Your task to perform on an android device: toggle location history Image 0: 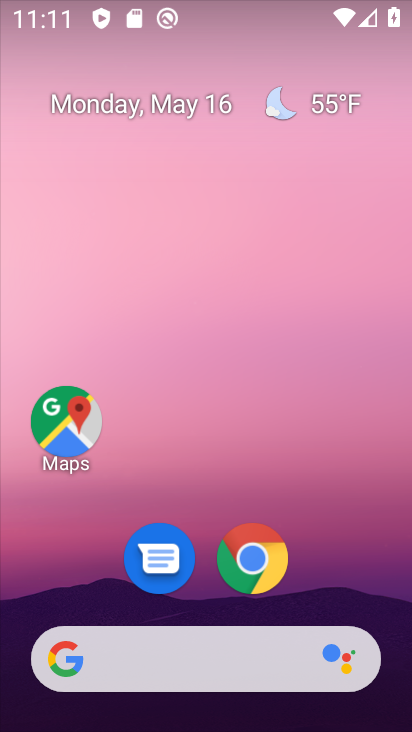
Step 0: drag from (206, 500) to (241, 112)
Your task to perform on an android device: toggle location history Image 1: 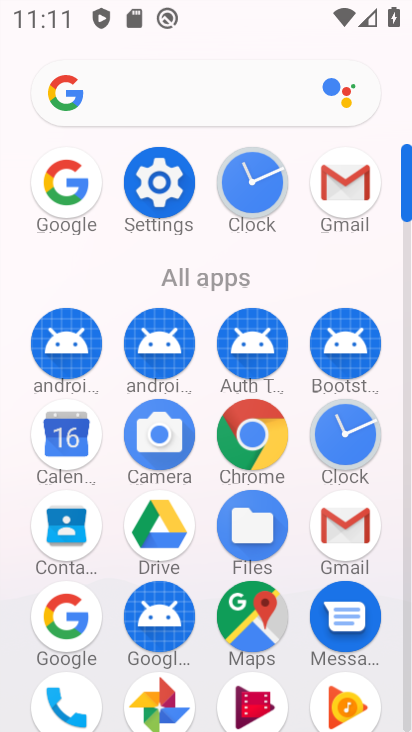
Step 1: click (165, 185)
Your task to perform on an android device: toggle location history Image 2: 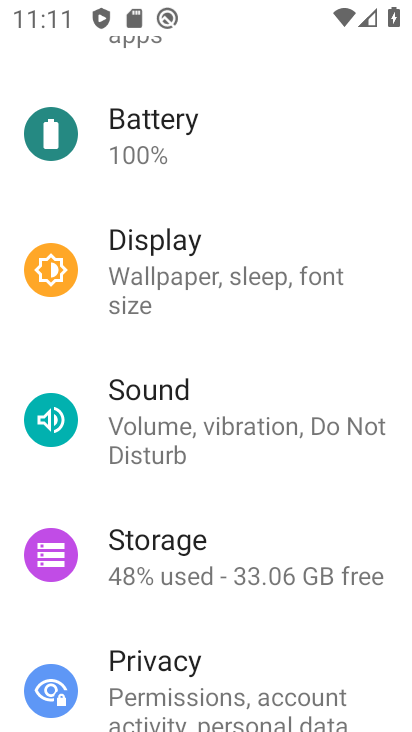
Step 2: drag from (238, 549) to (303, 132)
Your task to perform on an android device: toggle location history Image 3: 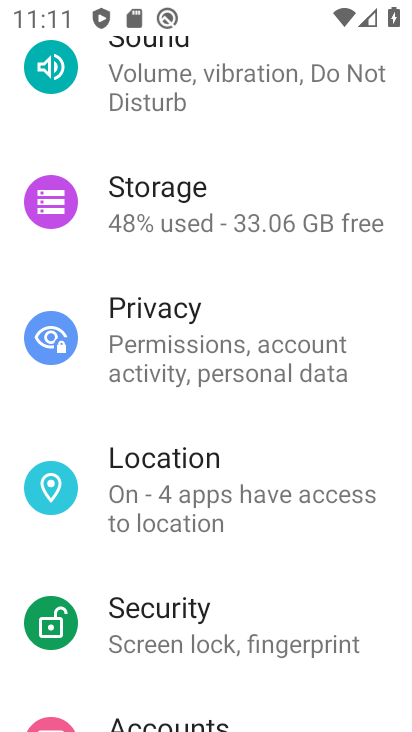
Step 3: click (188, 495)
Your task to perform on an android device: toggle location history Image 4: 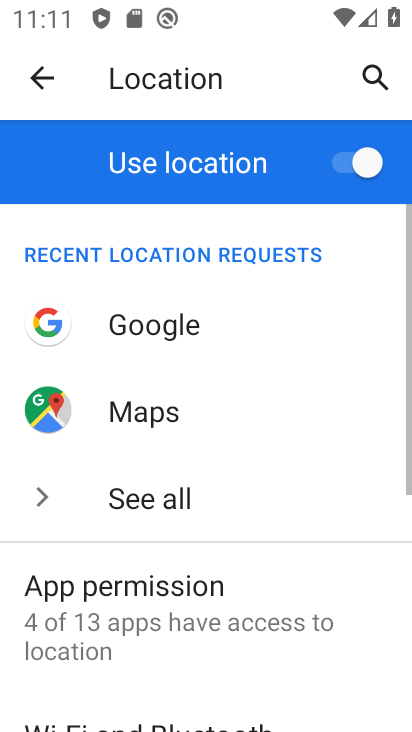
Step 4: drag from (231, 559) to (253, 146)
Your task to perform on an android device: toggle location history Image 5: 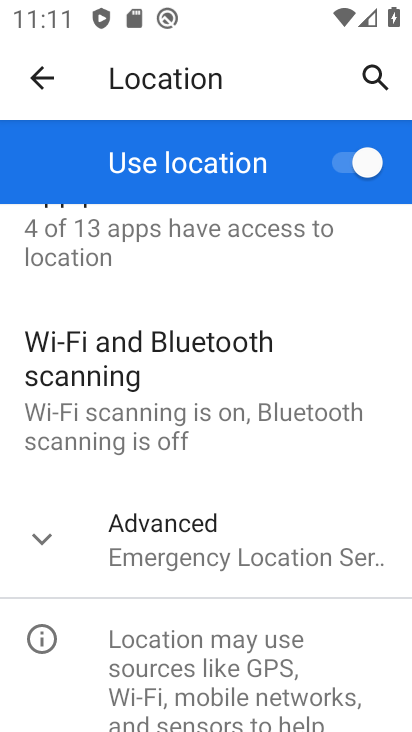
Step 5: click (157, 548)
Your task to perform on an android device: toggle location history Image 6: 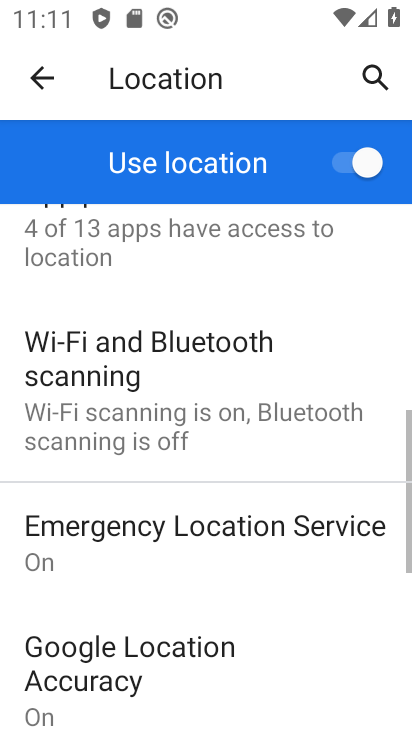
Step 6: drag from (226, 575) to (247, 262)
Your task to perform on an android device: toggle location history Image 7: 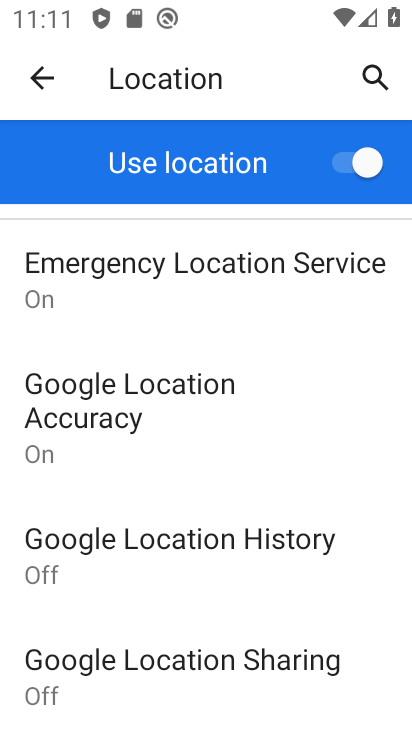
Step 7: click (203, 538)
Your task to perform on an android device: toggle location history Image 8: 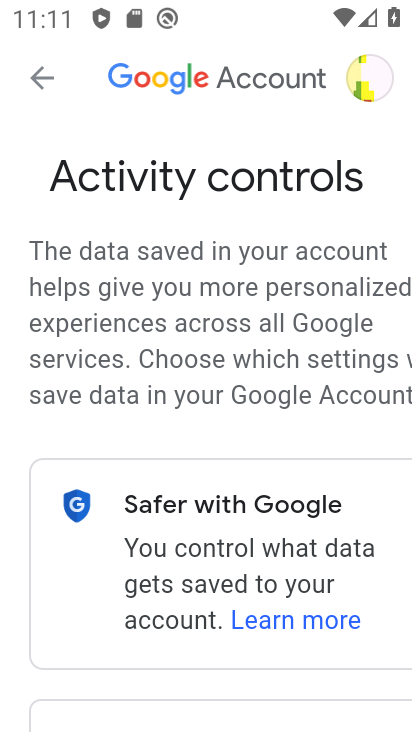
Step 8: drag from (287, 578) to (300, 22)
Your task to perform on an android device: toggle location history Image 9: 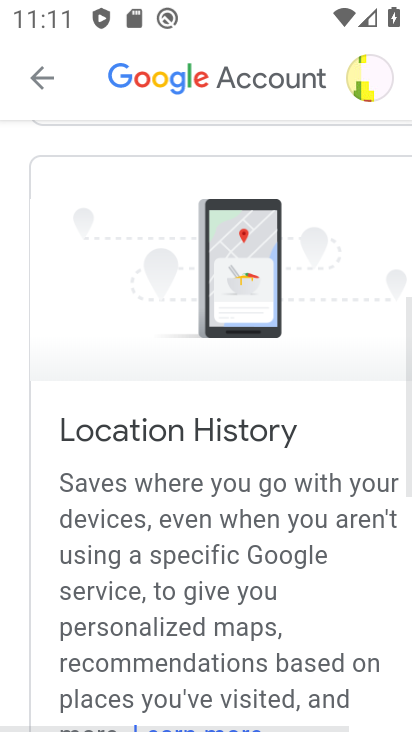
Step 9: drag from (291, 674) to (300, 176)
Your task to perform on an android device: toggle location history Image 10: 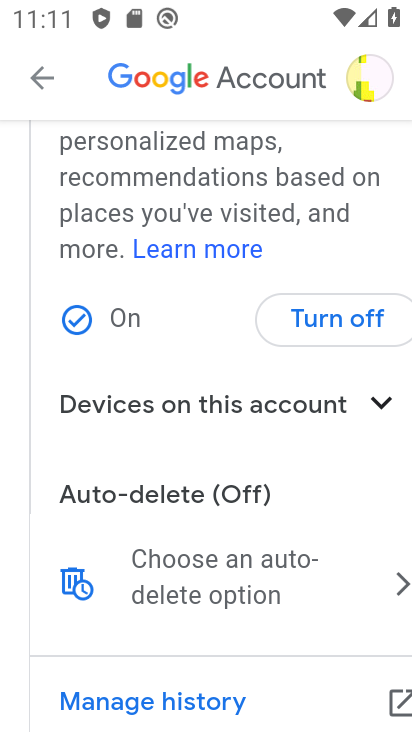
Step 10: click (321, 313)
Your task to perform on an android device: toggle location history Image 11: 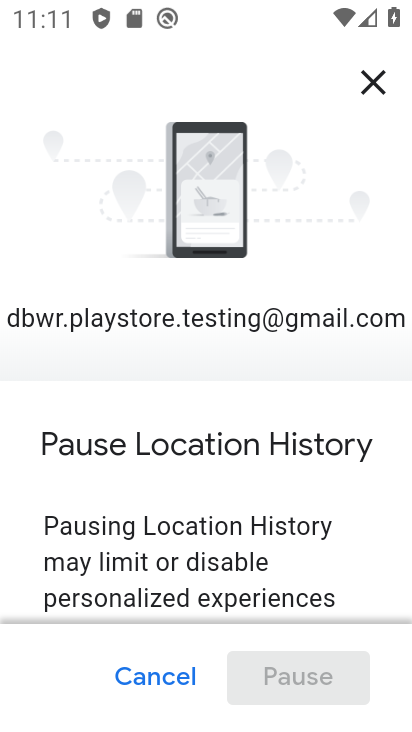
Step 11: drag from (244, 573) to (282, 110)
Your task to perform on an android device: toggle location history Image 12: 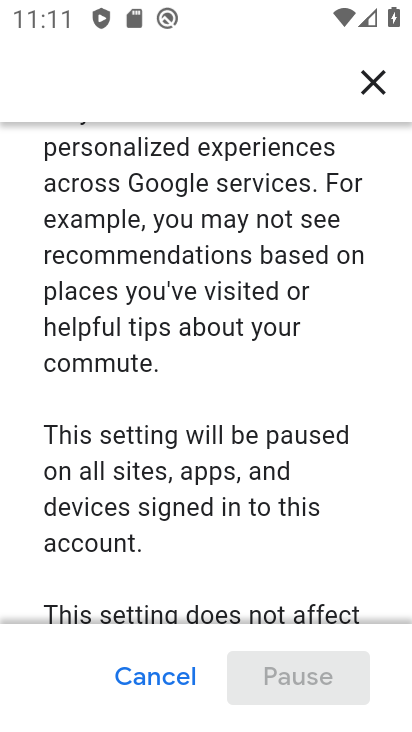
Step 12: drag from (314, 554) to (302, 152)
Your task to perform on an android device: toggle location history Image 13: 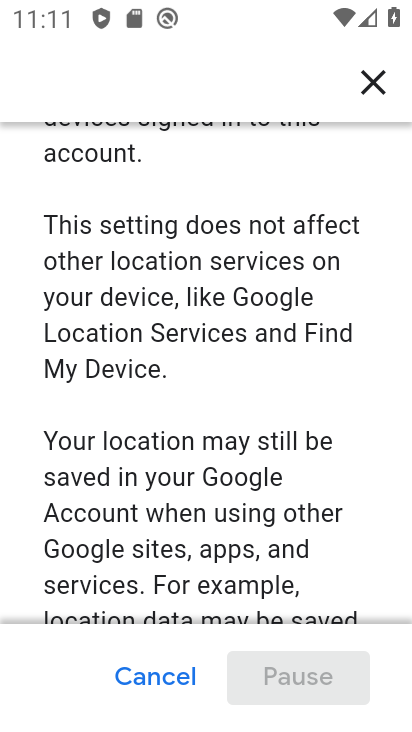
Step 13: drag from (328, 593) to (328, 232)
Your task to perform on an android device: toggle location history Image 14: 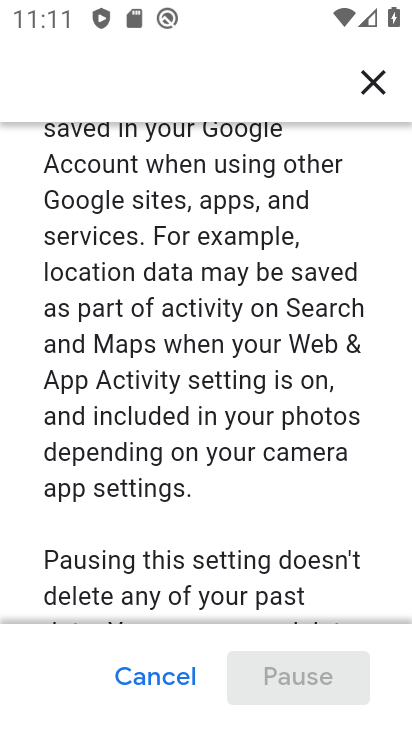
Step 14: drag from (314, 587) to (294, 198)
Your task to perform on an android device: toggle location history Image 15: 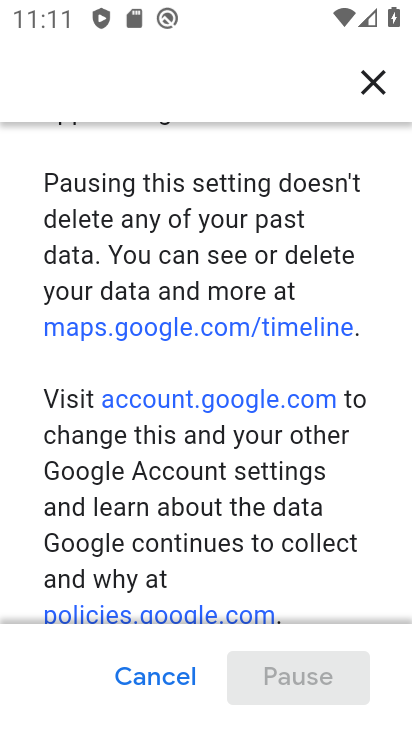
Step 15: drag from (294, 576) to (271, 265)
Your task to perform on an android device: toggle location history Image 16: 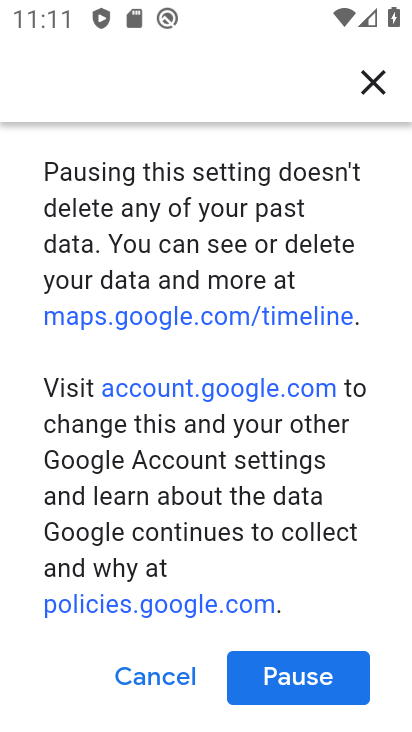
Step 16: click (296, 673)
Your task to perform on an android device: toggle location history Image 17: 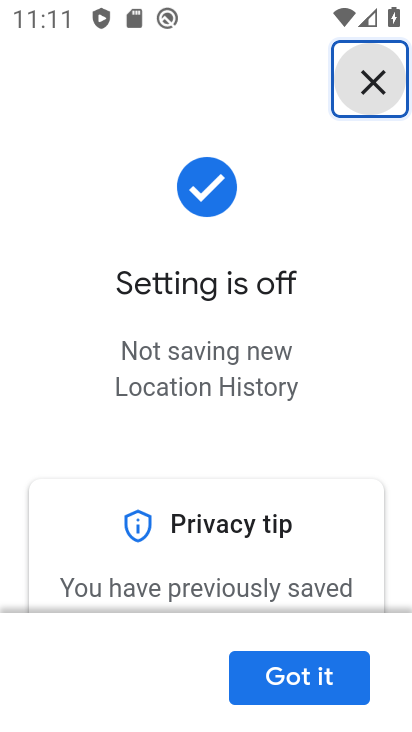
Step 17: click (296, 673)
Your task to perform on an android device: toggle location history Image 18: 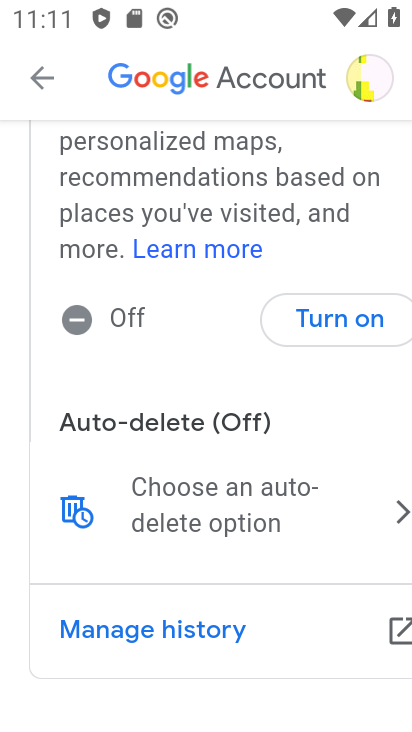
Step 18: task complete